Your task to perform on an android device: open app "Lyft - Rideshare, Bikes, Scooters & Transit" (install if not already installed) Image 0: 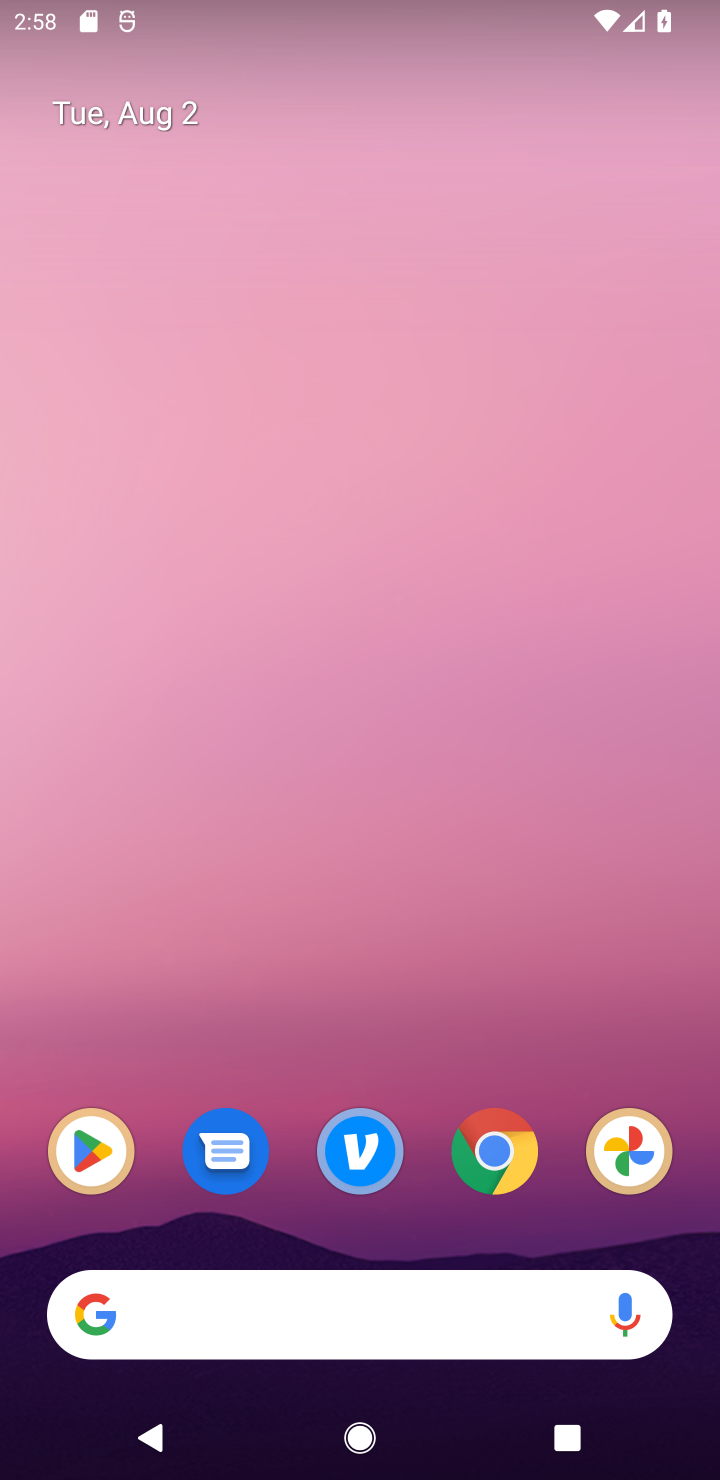
Step 0: drag from (406, 664) to (475, 194)
Your task to perform on an android device: open app "Lyft - Rideshare, Bikes, Scooters & Transit" (install if not already installed) Image 1: 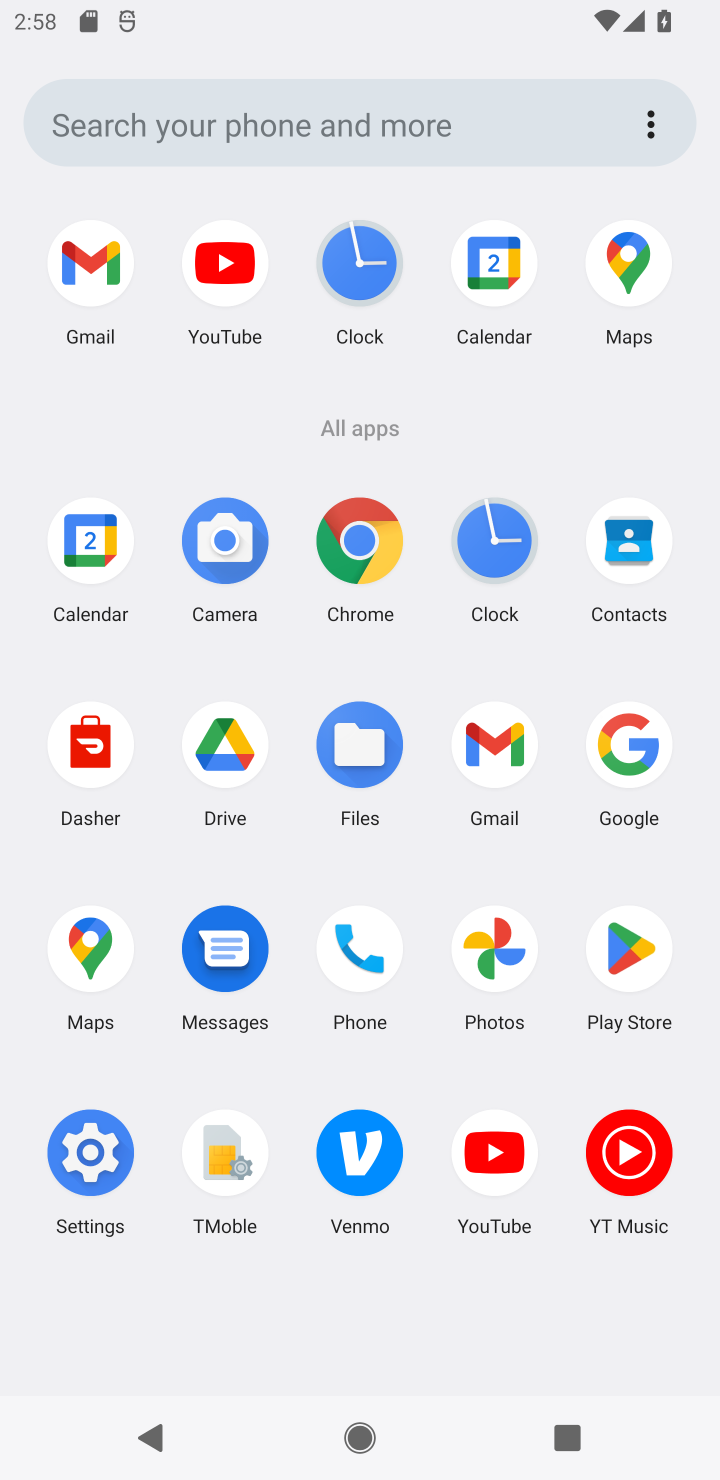
Step 1: click (627, 1027)
Your task to perform on an android device: open app "Lyft - Rideshare, Bikes, Scooters & Transit" (install if not already installed) Image 2: 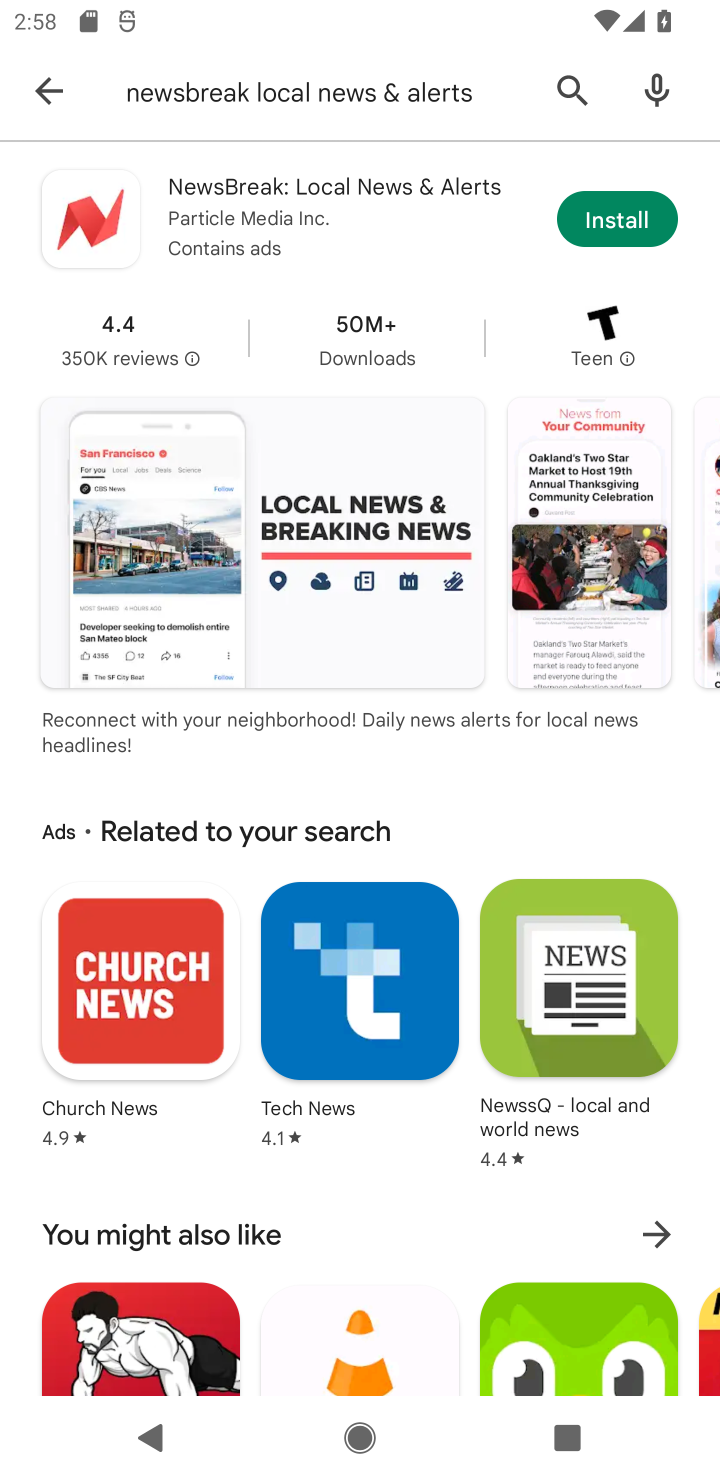
Step 2: click (42, 88)
Your task to perform on an android device: open app "Lyft - Rideshare, Bikes, Scooters & Transit" (install if not already installed) Image 3: 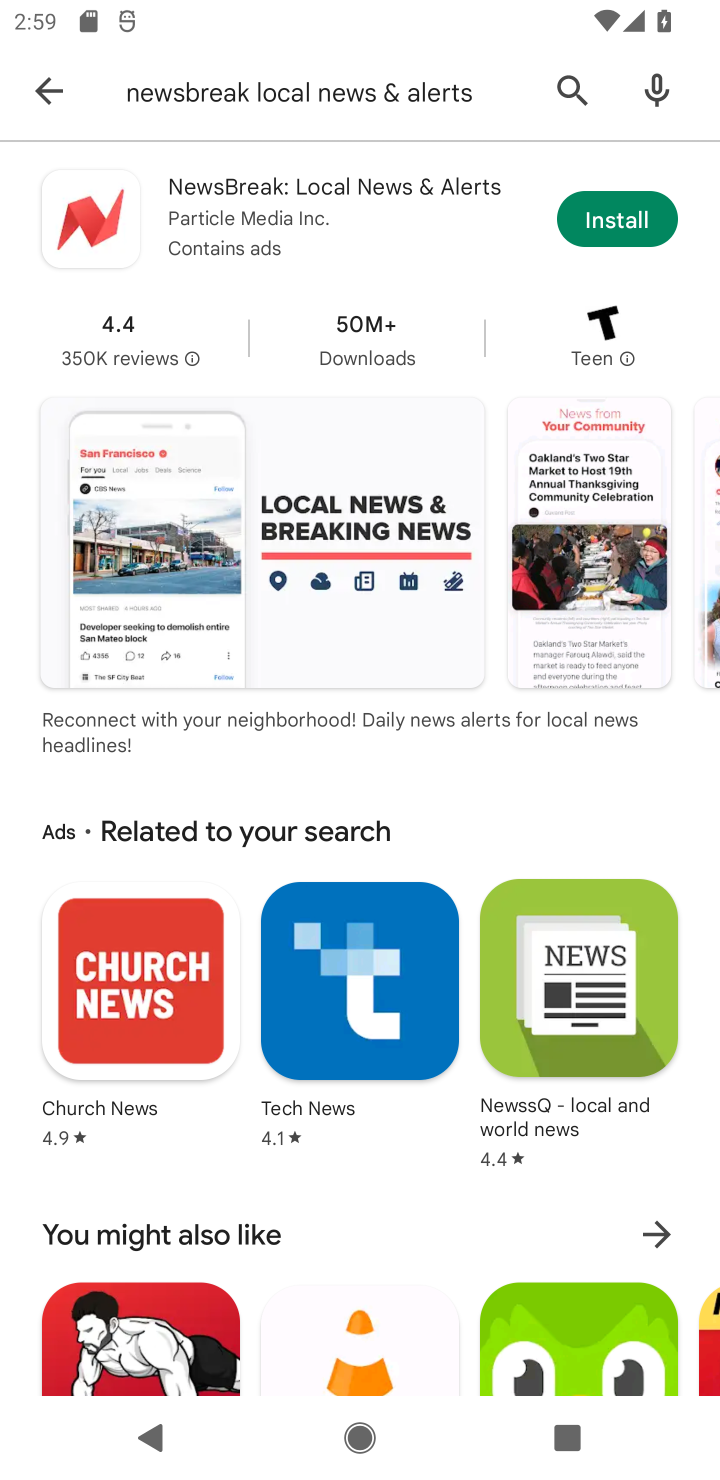
Step 3: click (62, 97)
Your task to perform on an android device: open app "Lyft - Rideshare, Bikes, Scooters & Transit" (install if not already installed) Image 4: 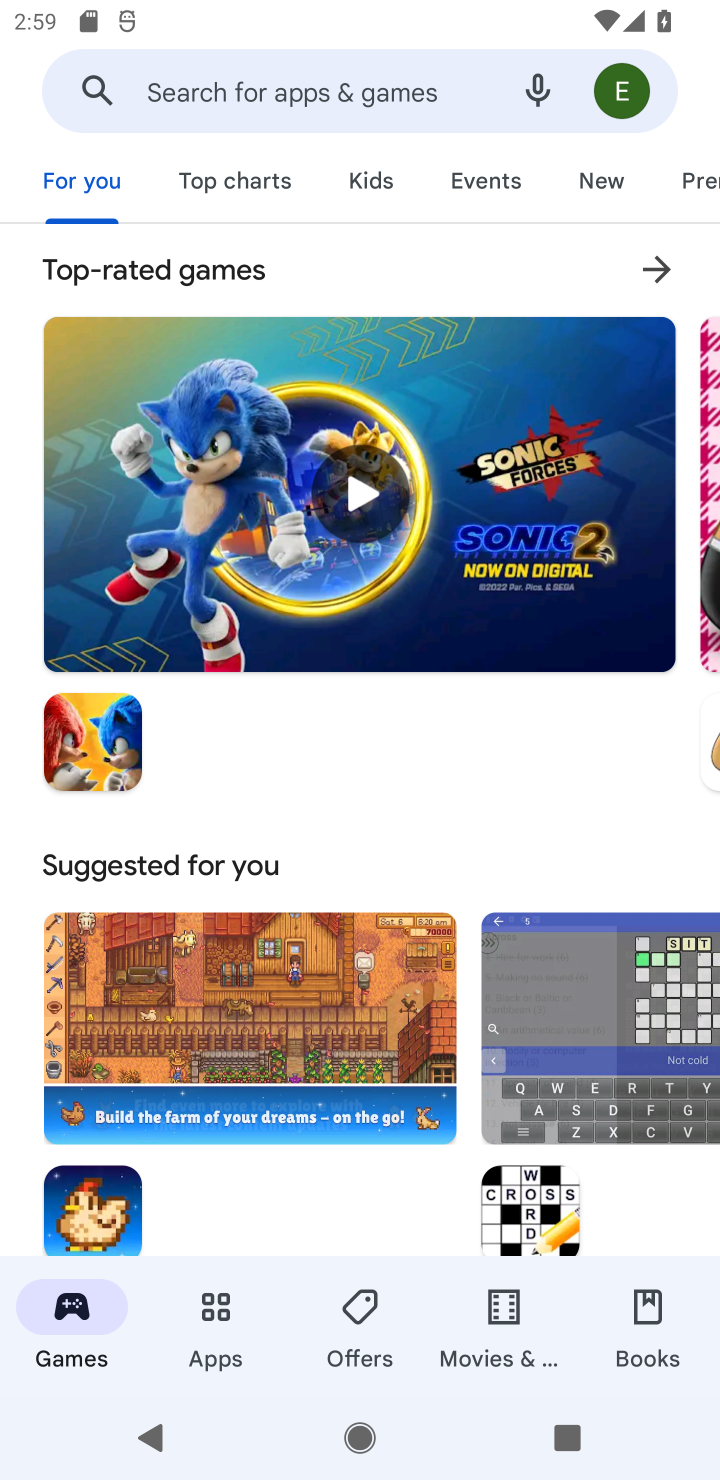
Step 4: click (317, 73)
Your task to perform on an android device: open app "Lyft - Rideshare, Bikes, Scooters & Transit" (install if not already installed) Image 5: 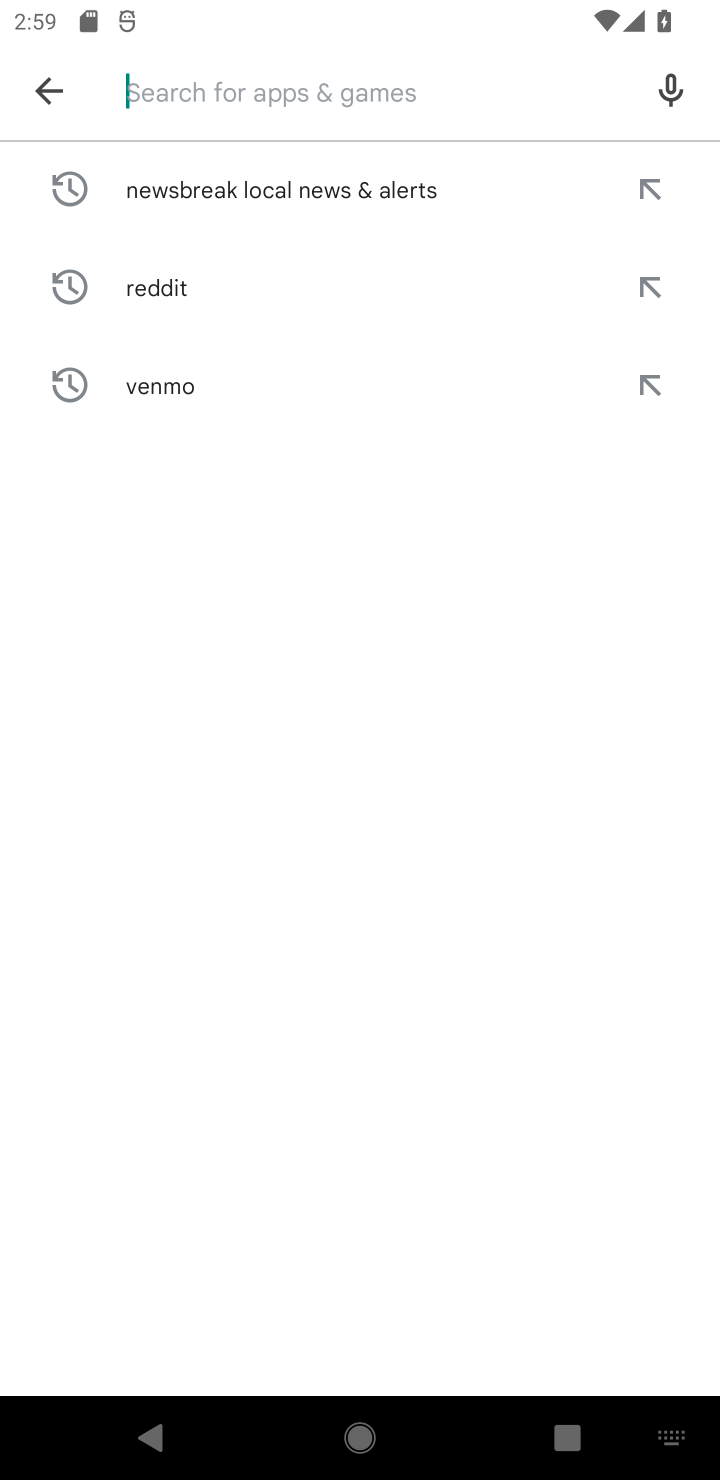
Step 5: type "Lyft - Rideshare, Bikes, Scooters & Transit"
Your task to perform on an android device: open app "Lyft - Rideshare, Bikes, Scooters & Transit" (install if not already installed) Image 6: 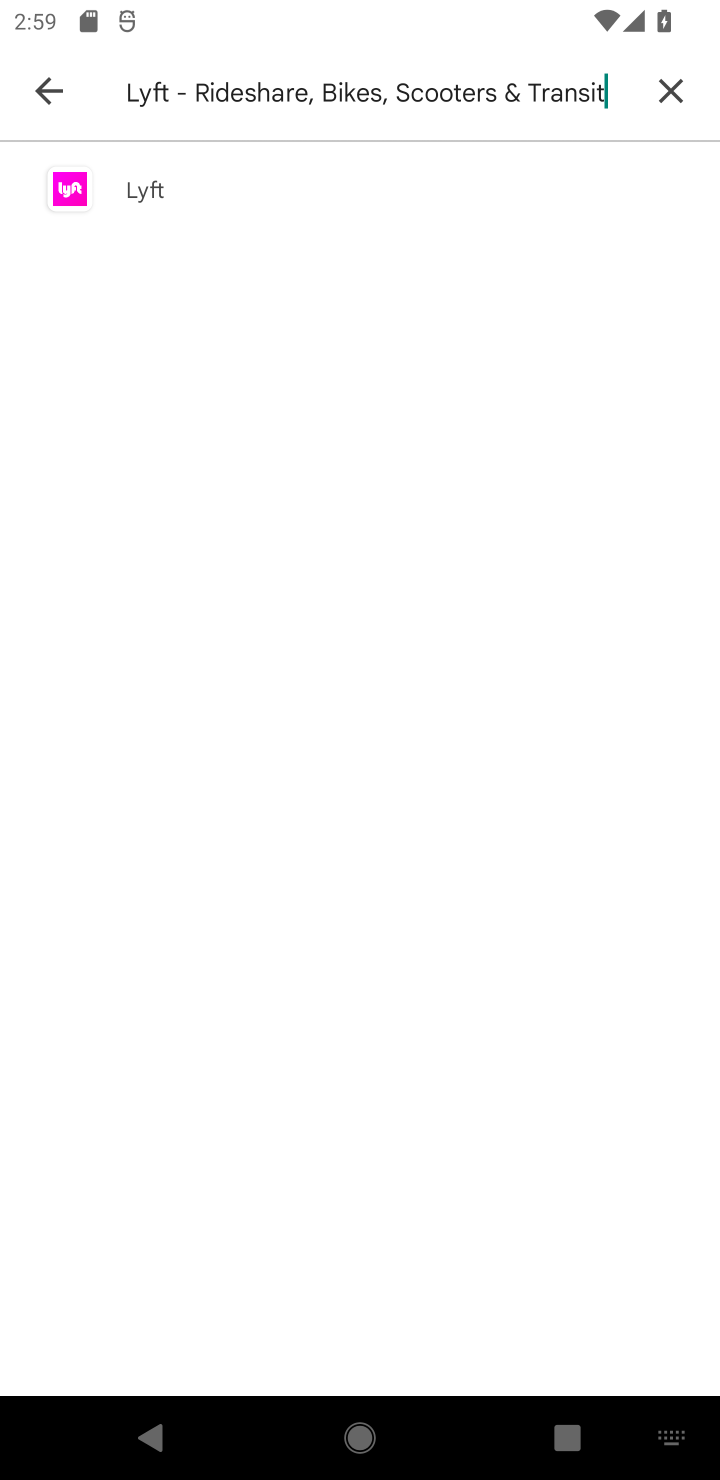
Step 6: type ""
Your task to perform on an android device: open app "Lyft - Rideshare, Bikes, Scooters & Transit" (install if not already installed) Image 7: 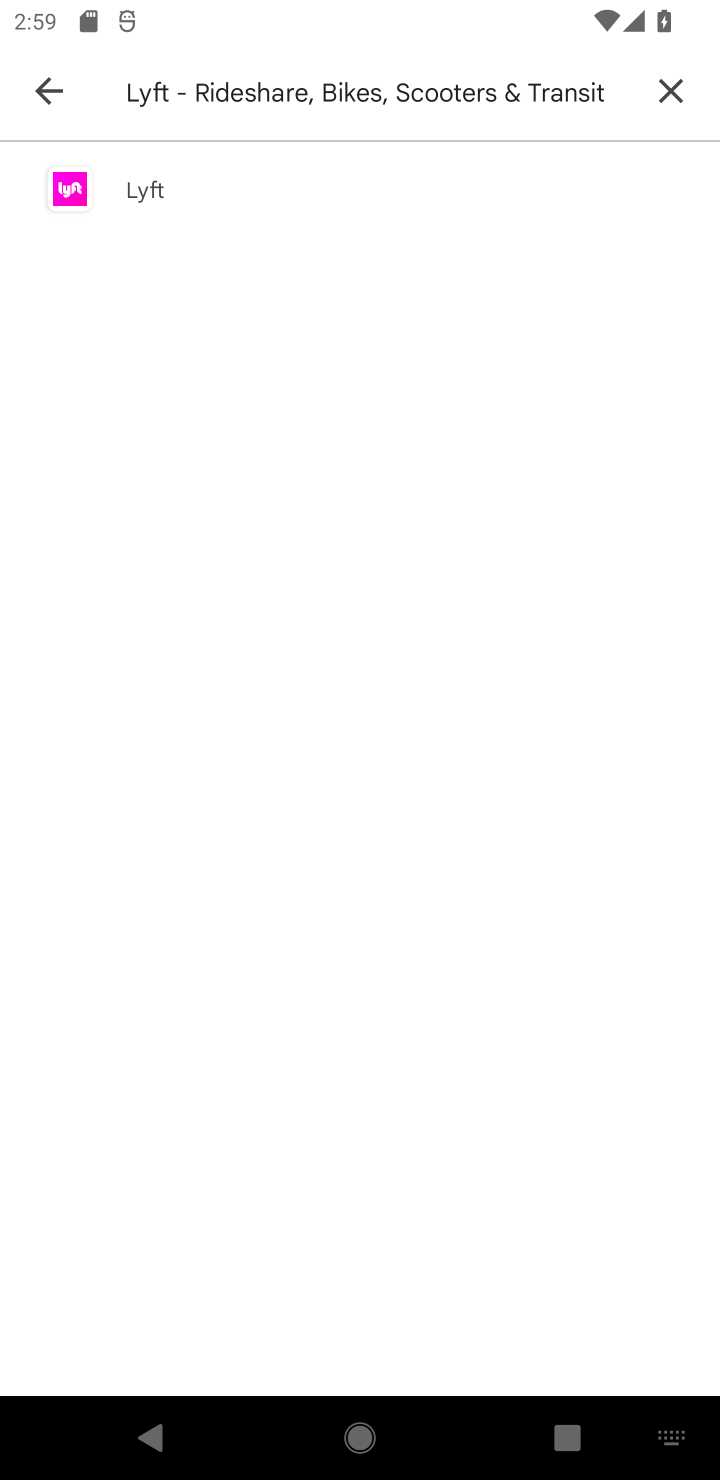
Step 7: click (340, 187)
Your task to perform on an android device: open app "Lyft - Rideshare, Bikes, Scooters & Transit" (install if not already installed) Image 8: 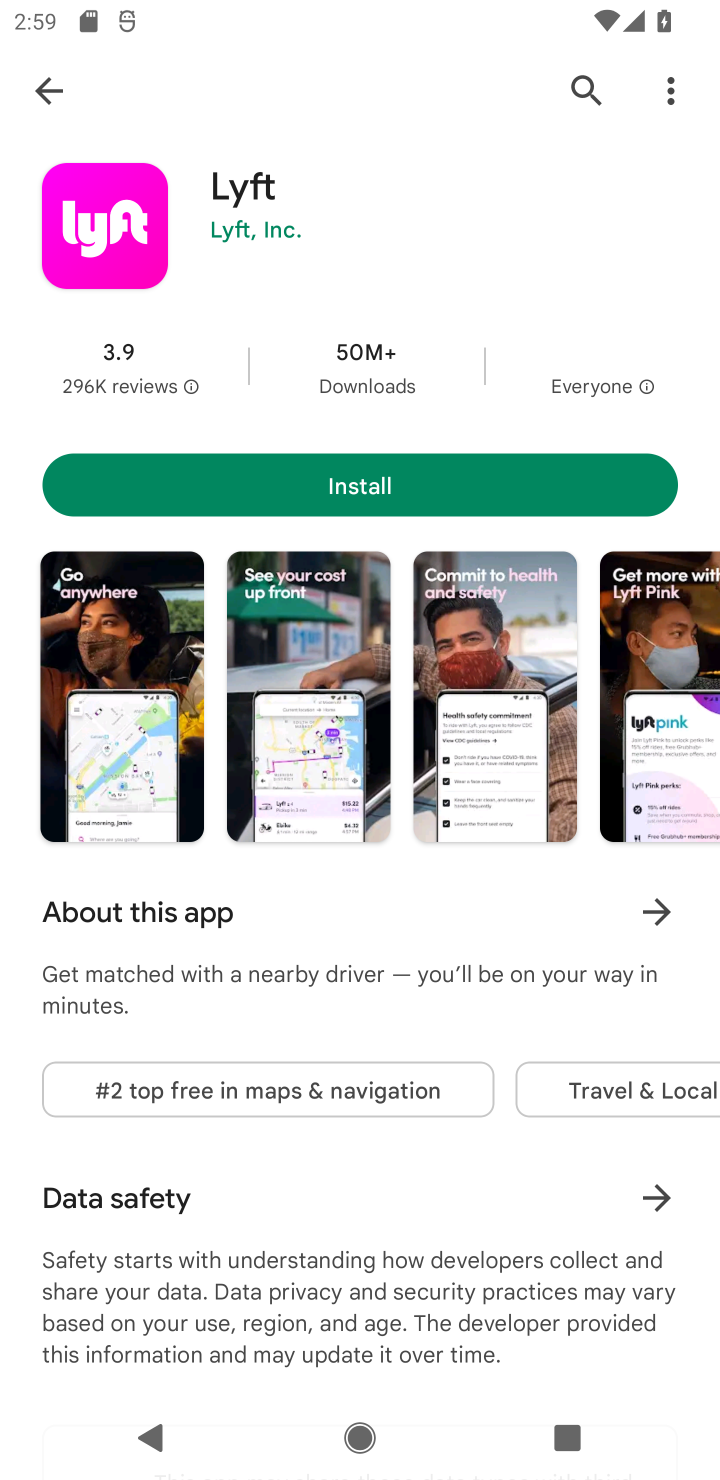
Step 8: click (434, 483)
Your task to perform on an android device: open app "Lyft - Rideshare, Bikes, Scooters & Transit" (install if not already installed) Image 9: 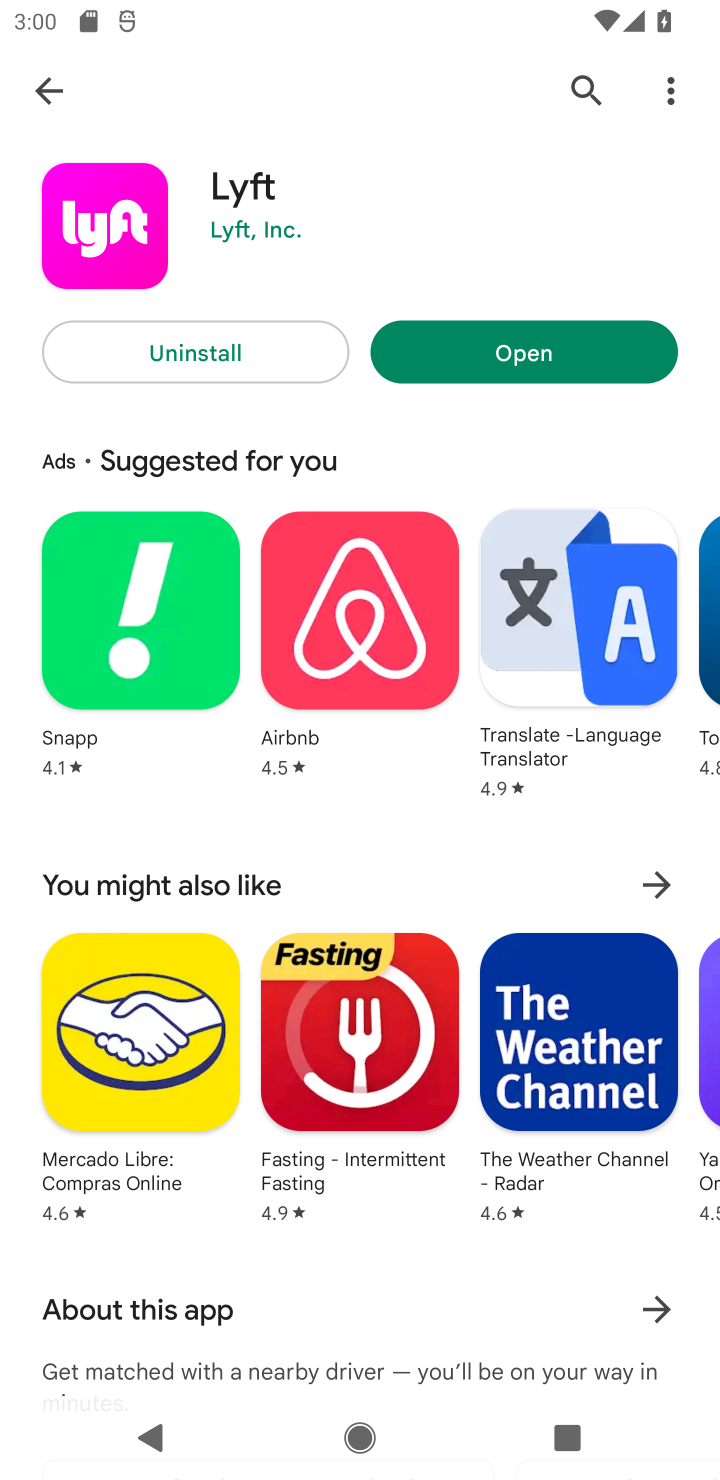
Step 9: click (537, 341)
Your task to perform on an android device: open app "Lyft - Rideshare, Bikes, Scooters & Transit" (install if not already installed) Image 10: 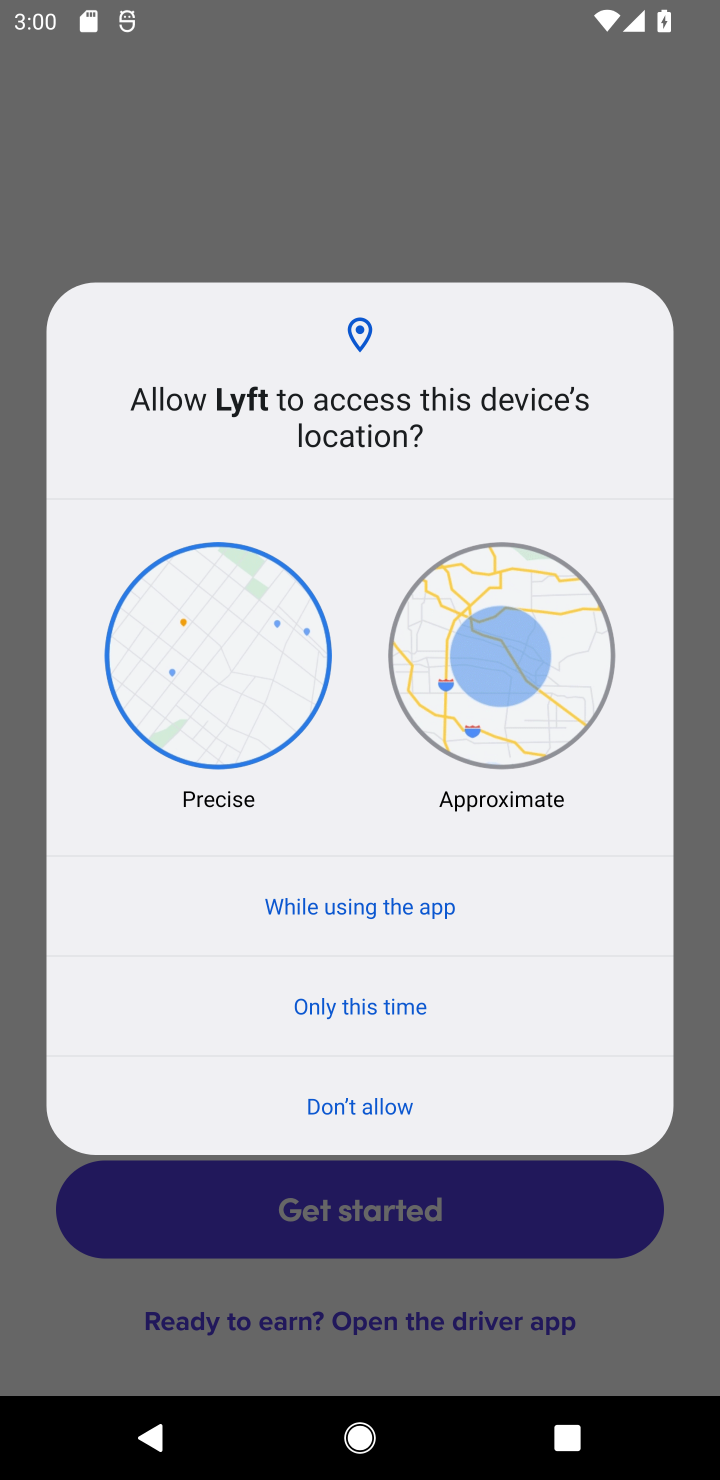
Step 10: click (332, 886)
Your task to perform on an android device: open app "Lyft - Rideshare, Bikes, Scooters & Transit" (install if not already installed) Image 11: 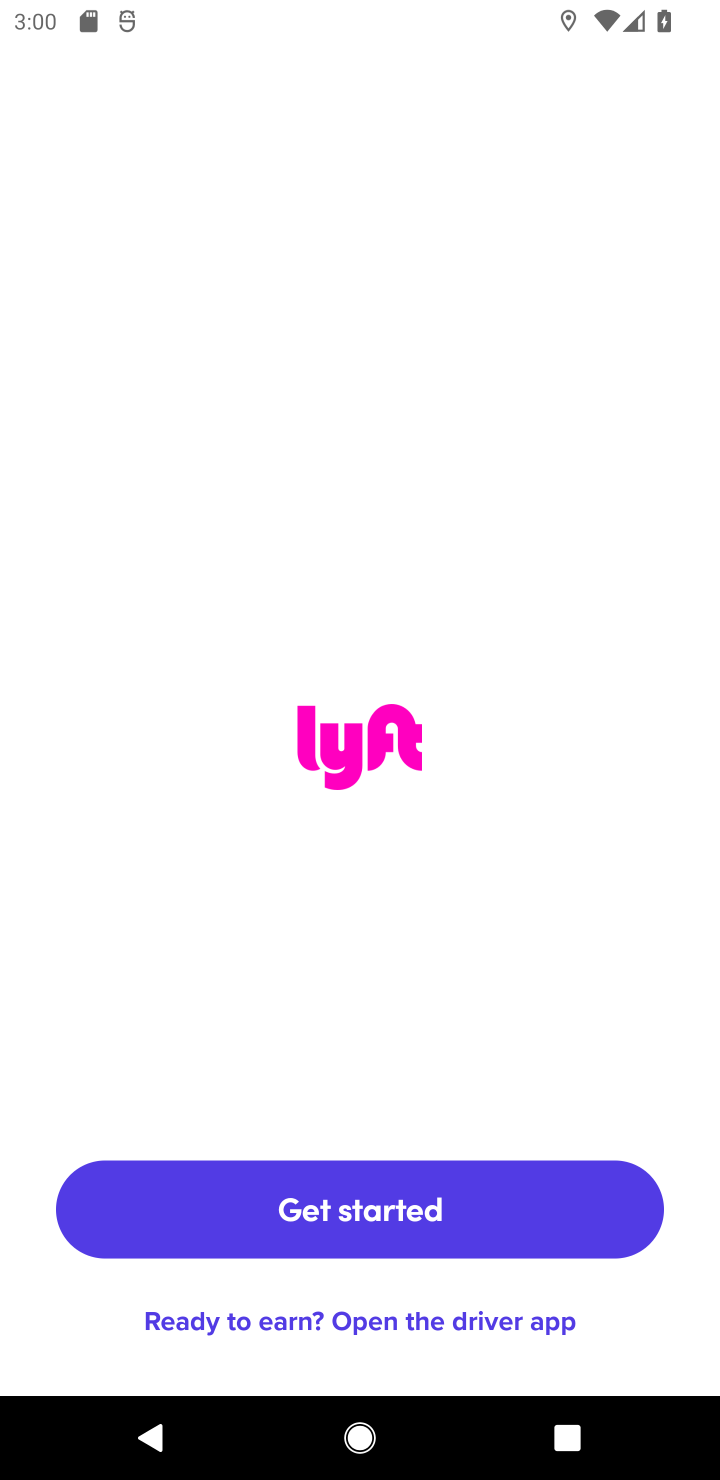
Step 11: task complete